Your task to perform on an android device: turn on priority inbox in the gmail app Image 0: 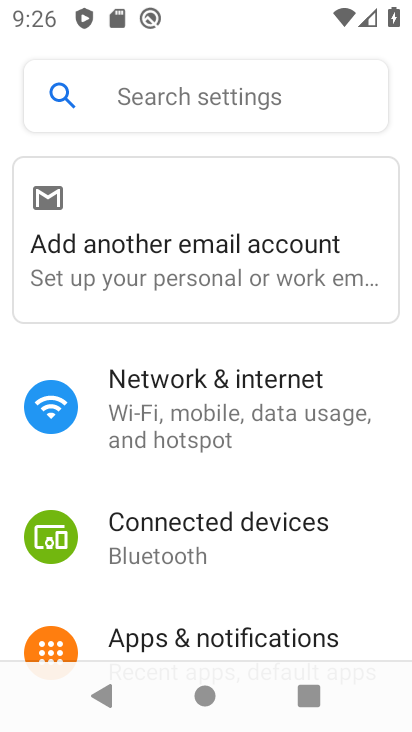
Step 0: press home button
Your task to perform on an android device: turn on priority inbox in the gmail app Image 1: 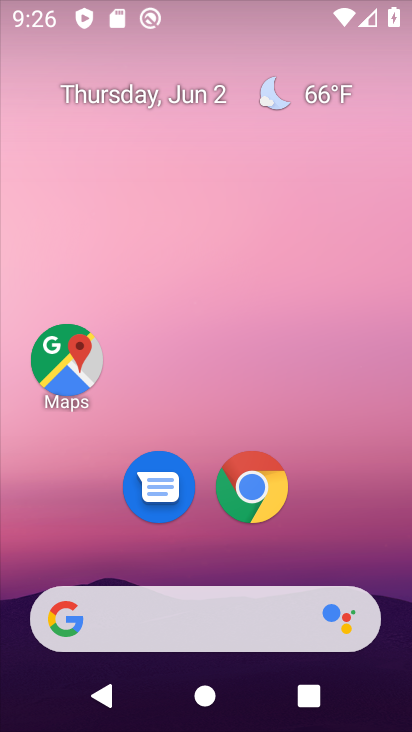
Step 1: drag from (207, 728) to (221, 129)
Your task to perform on an android device: turn on priority inbox in the gmail app Image 2: 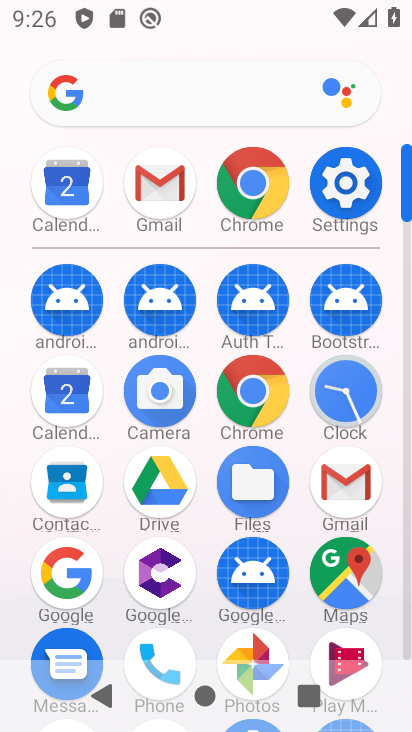
Step 2: click (340, 480)
Your task to perform on an android device: turn on priority inbox in the gmail app Image 3: 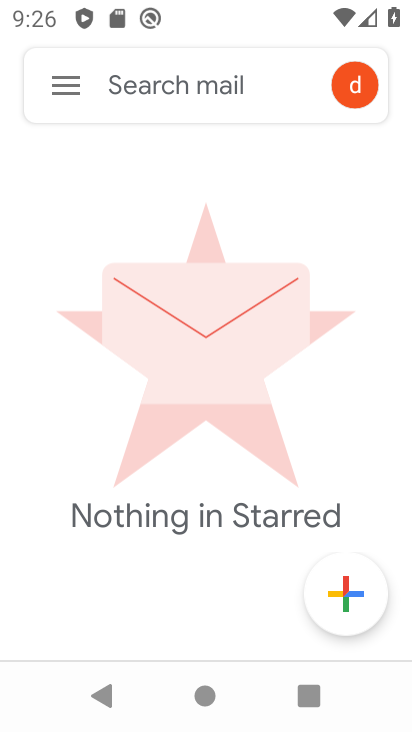
Step 3: click (59, 91)
Your task to perform on an android device: turn on priority inbox in the gmail app Image 4: 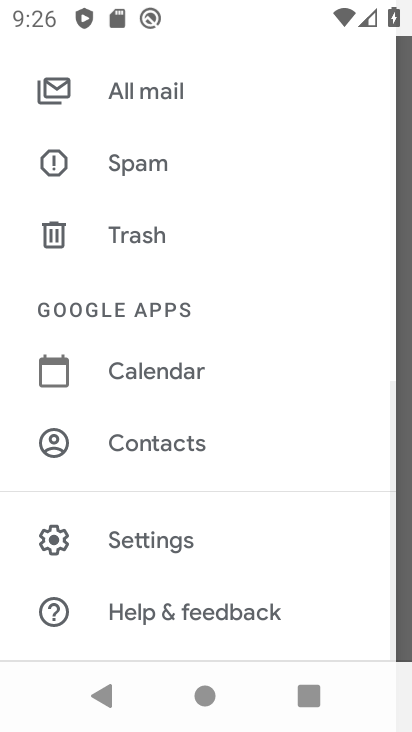
Step 4: click (159, 539)
Your task to perform on an android device: turn on priority inbox in the gmail app Image 5: 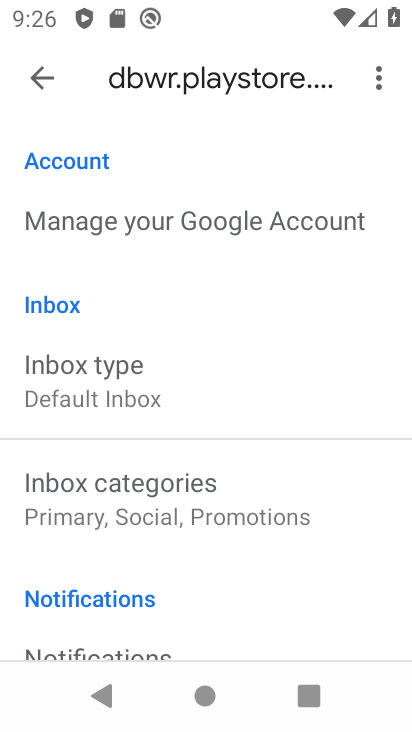
Step 5: click (120, 393)
Your task to perform on an android device: turn on priority inbox in the gmail app Image 6: 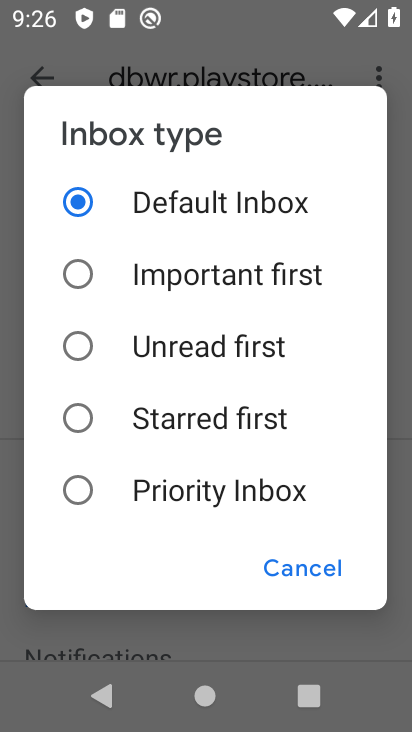
Step 6: click (80, 488)
Your task to perform on an android device: turn on priority inbox in the gmail app Image 7: 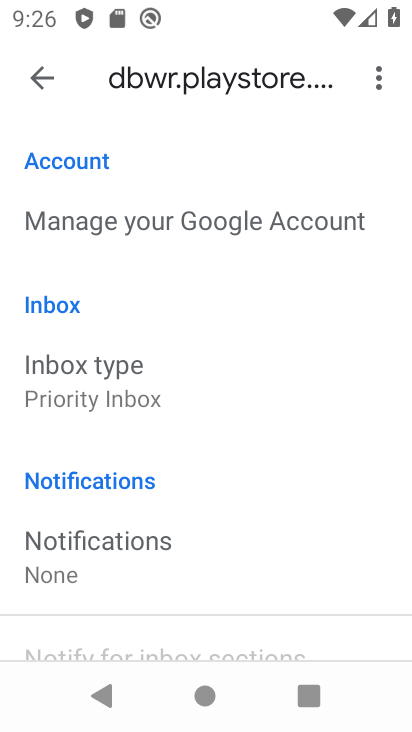
Step 7: task complete